Your task to perform on an android device: check data usage Image 0: 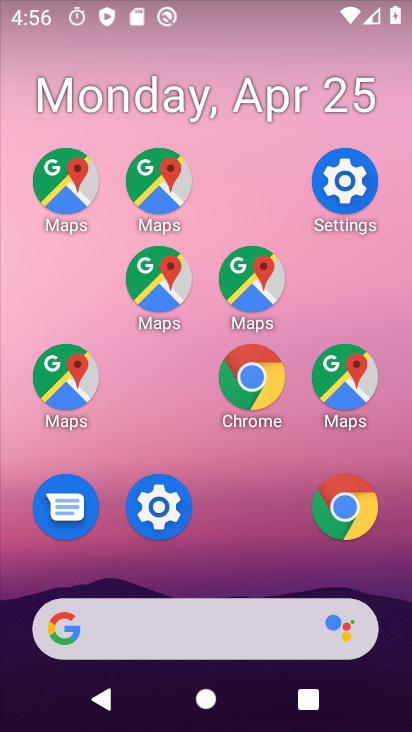
Step 0: drag from (248, 728) to (209, 121)
Your task to perform on an android device: check data usage Image 1: 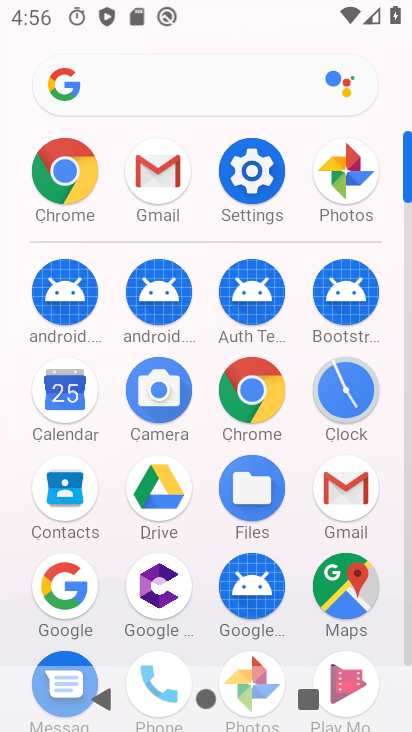
Step 1: click (247, 173)
Your task to perform on an android device: check data usage Image 2: 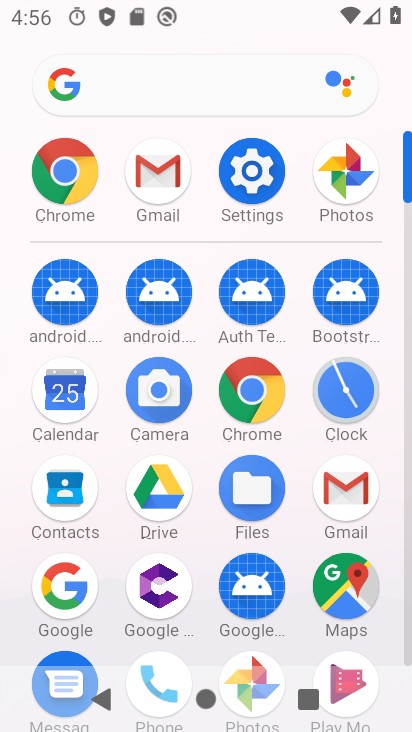
Step 2: click (248, 172)
Your task to perform on an android device: check data usage Image 3: 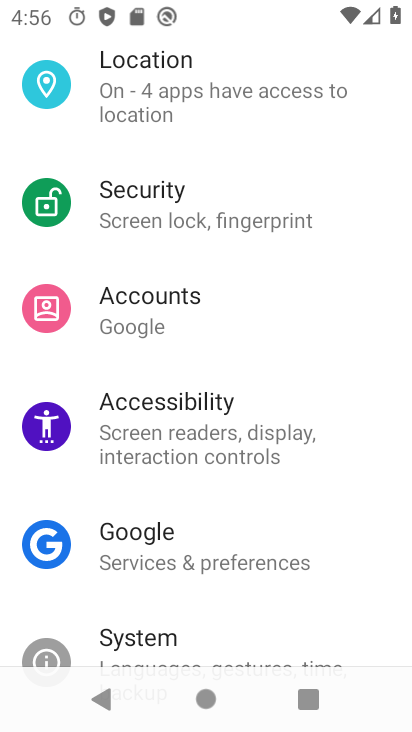
Step 3: drag from (162, 300) to (138, 242)
Your task to perform on an android device: check data usage Image 4: 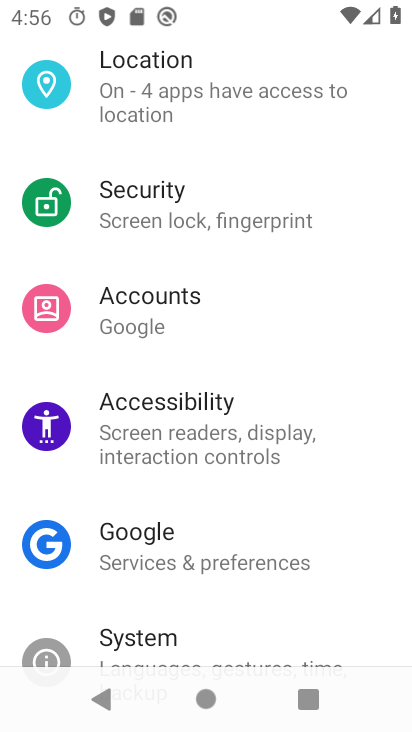
Step 4: drag from (186, 556) to (131, 99)
Your task to perform on an android device: check data usage Image 5: 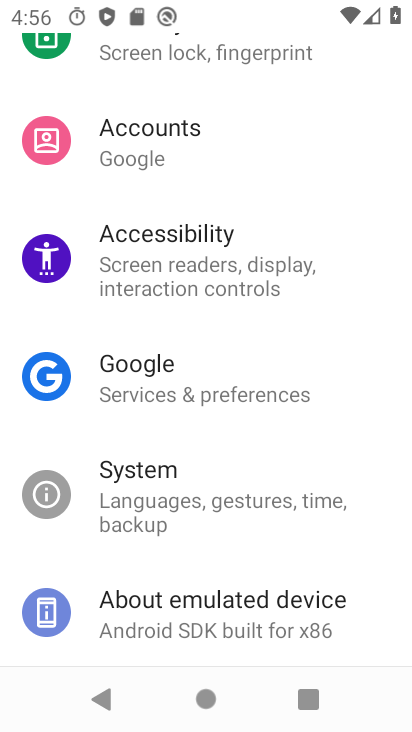
Step 5: drag from (169, 160) to (140, 651)
Your task to perform on an android device: check data usage Image 6: 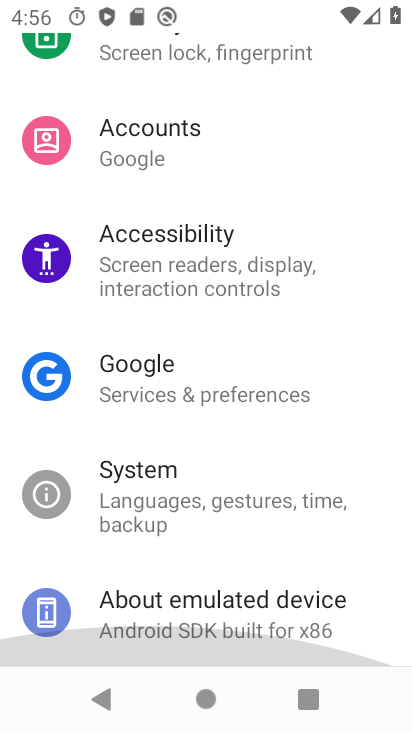
Step 6: drag from (184, 521) to (198, 459)
Your task to perform on an android device: check data usage Image 7: 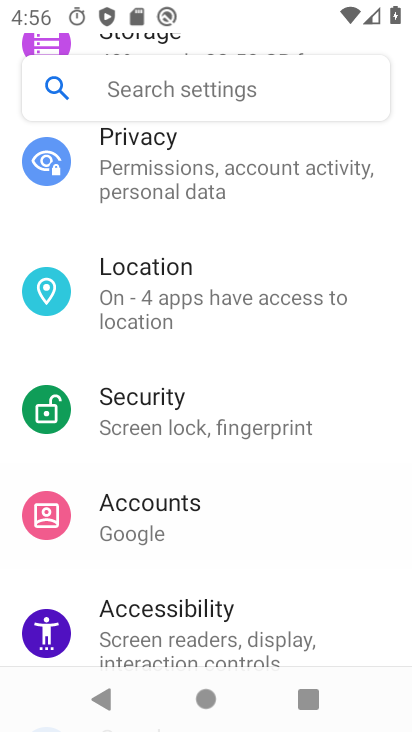
Step 7: drag from (195, 448) to (103, 637)
Your task to perform on an android device: check data usage Image 8: 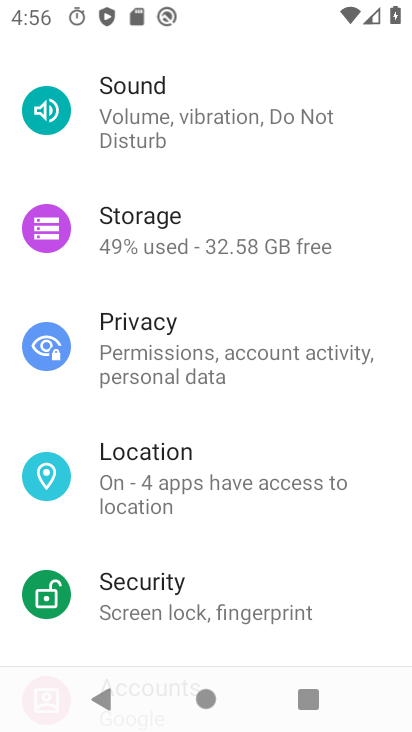
Step 8: drag from (193, 273) to (194, 559)
Your task to perform on an android device: check data usage Image 9: 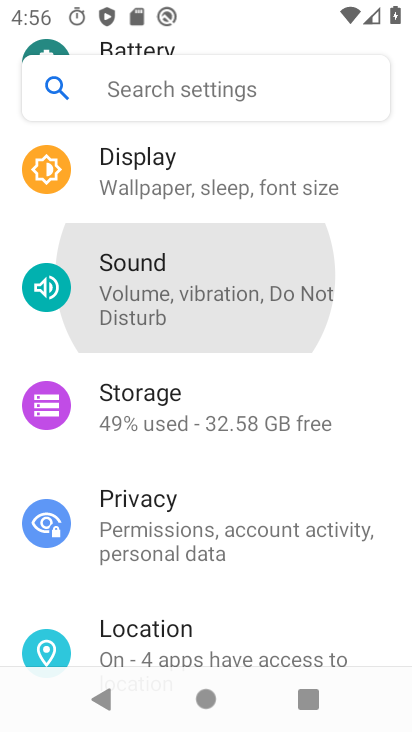
Step 9: drag from (231, 336) to (171, 291)
Your task to perform on an android device: check data usage Image 10: 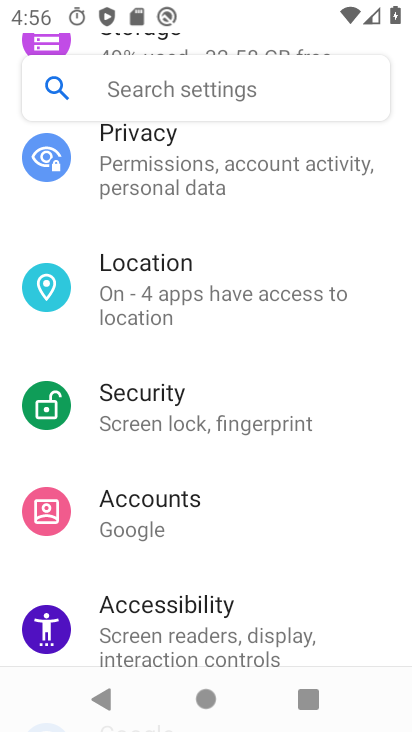
Step 10: drag from (185, 266) to (174, 499)
Your task to perform on an android device: check data usage Image 11: 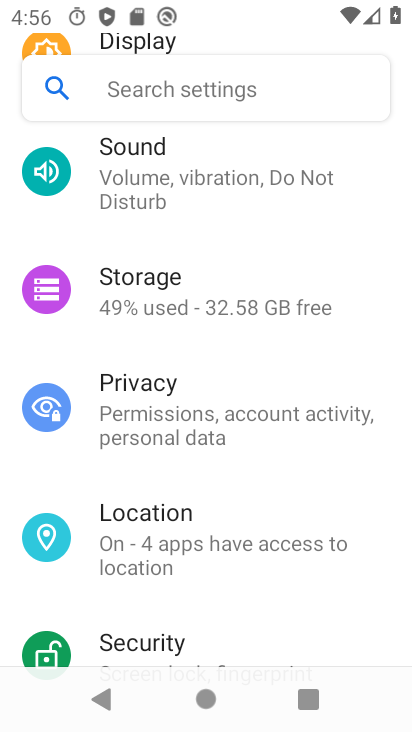
Step 11: drag from (167, 203) to (193, 519)
Your task to perform on an android device: check data usage Image 12: 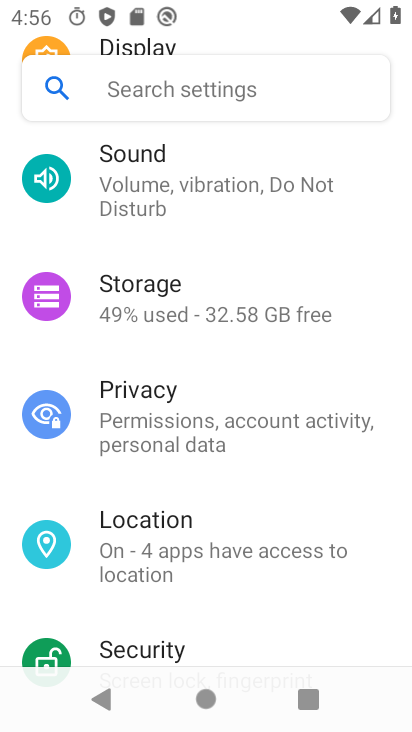
Step 12: drag from (284, 514) to (293, 552)
Your task to perform on an android device: check data usage Image 13: 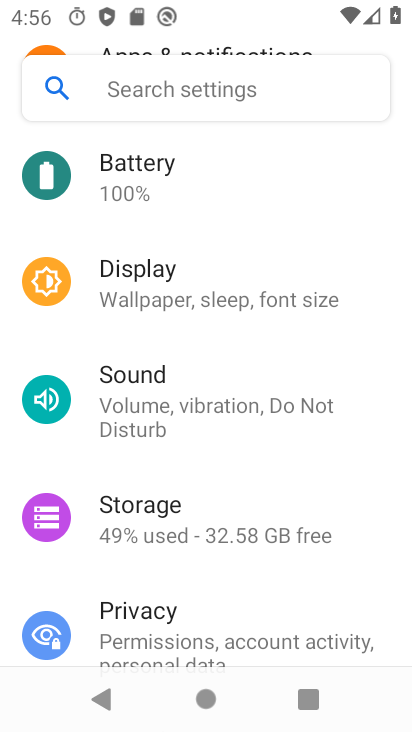
Step 13: drag from (298, 442) to (257, 371)
Your task to perform on an android device: check data usage Image 14: 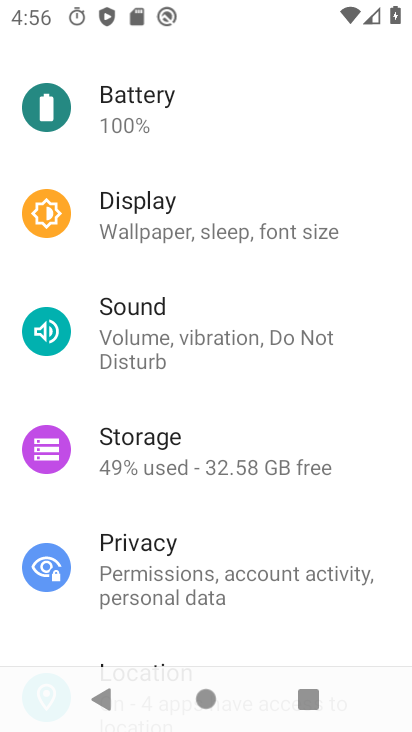
Step 14: click (219, 150)
Your task to perform on an android device: check data usage Image 15: 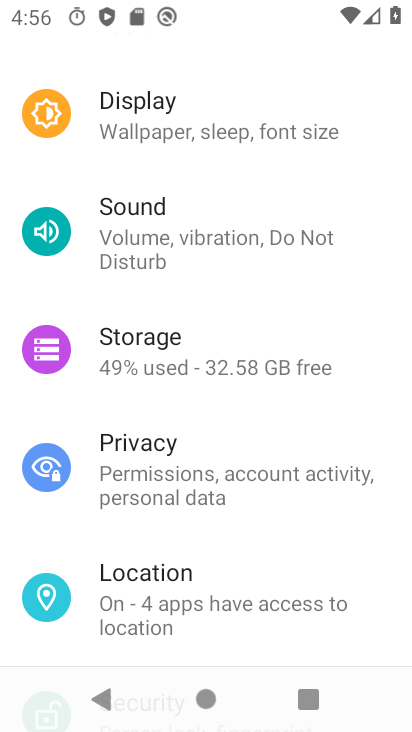
Step 15: drag from (144, 97) to (160, 294)
Your task to perform on an android device: check data usage Image 16: 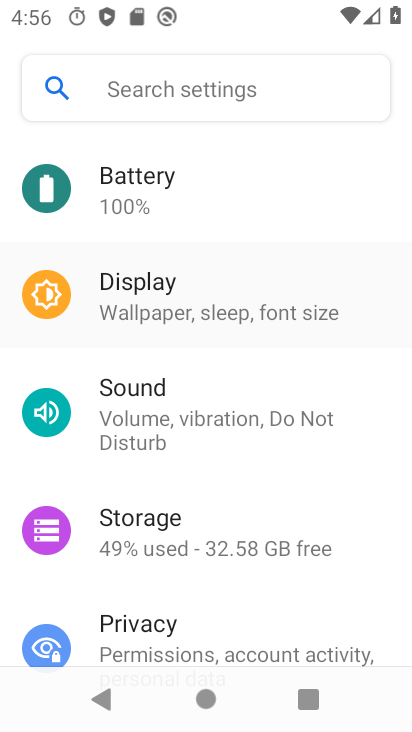
Step 16: drag from (186, 130) to (80, 311)
Your task to perform on an android device: check data usage Image 17: 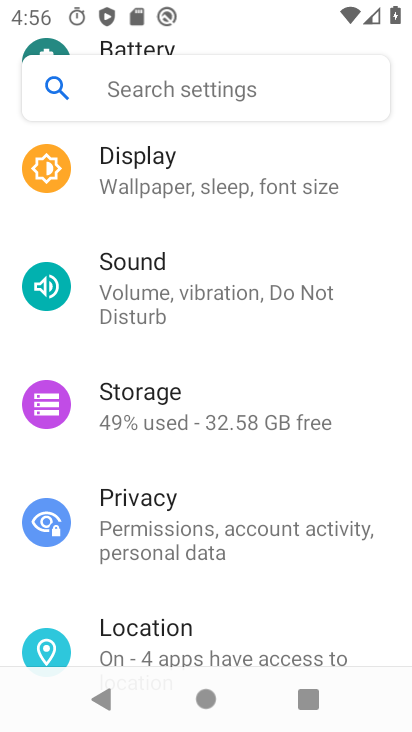
Step 17: drag from (141, 260) to (225, 341)
Your task to perform on an android device: check data usage Image 18: 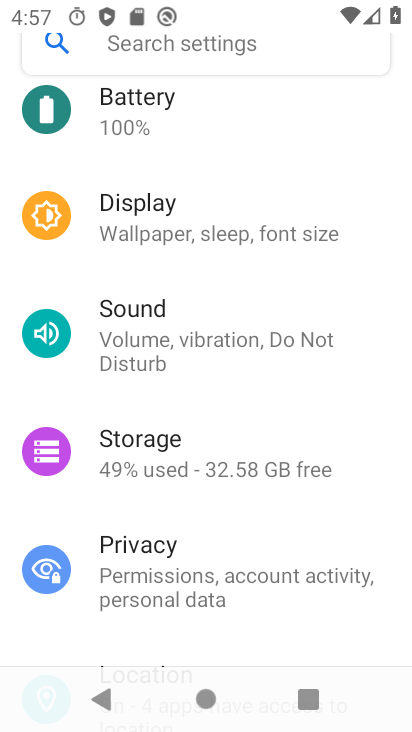
Step 18: drag from (165, 277) to (176, 532)
Your task to perform on an android device: check data usage Image 19: 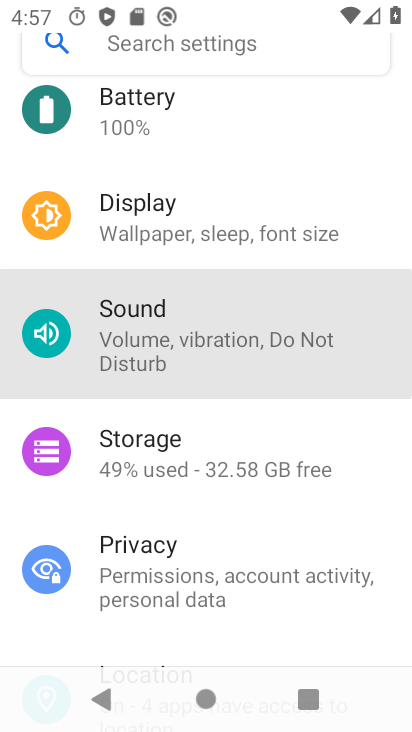
Step 19: drag from (181, 312) to (266, 455)
Your task to perform on an android device: check data usage Image 20: 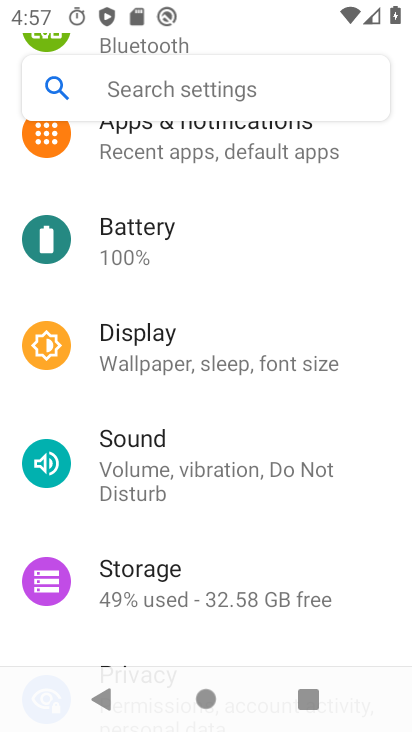
Step 20: drag from (176, 174) to (173, 463)
Your task to perform on an android device: check data usage Image 21: 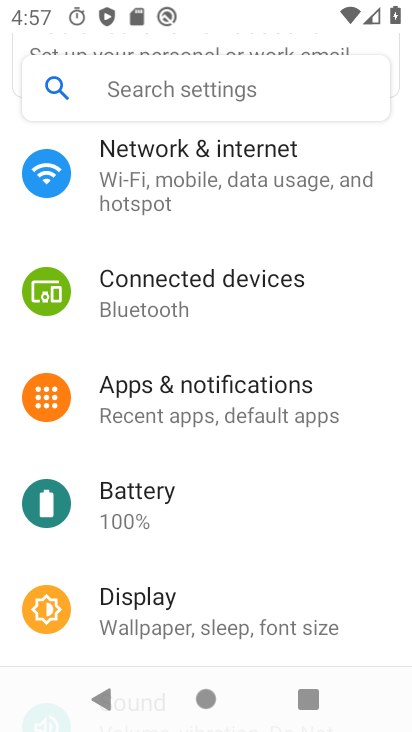
Step 21: click (204, 183)
Your task to perform on an android device: check data usage Image 22: 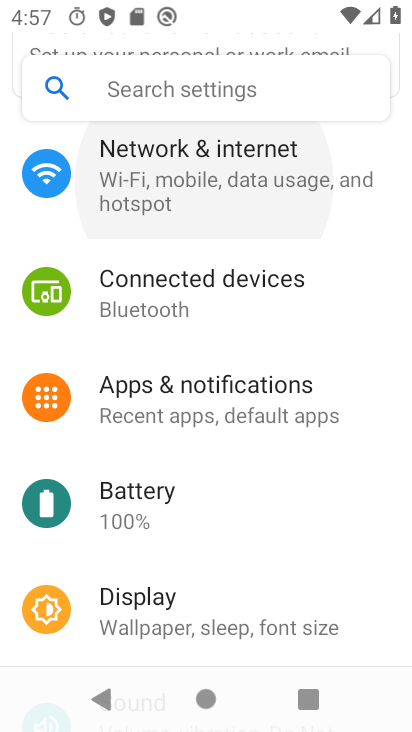
Step 22: task complete